Your task to perform on an android device: Is it going to rain today? Image 0: 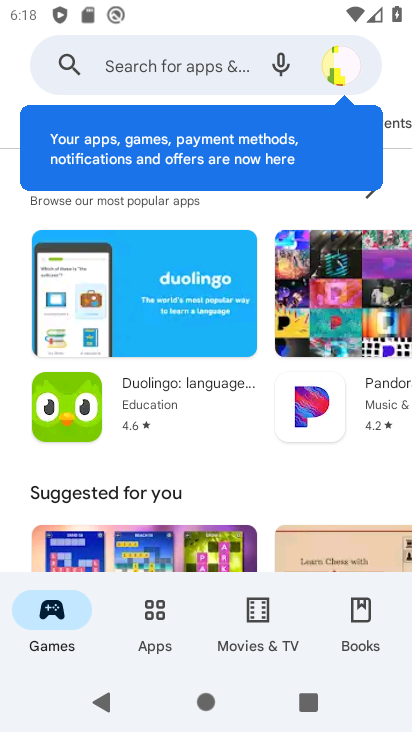
Step 0: press home button
Your task to perform on an android device: Is it going to rain today? Image 1: 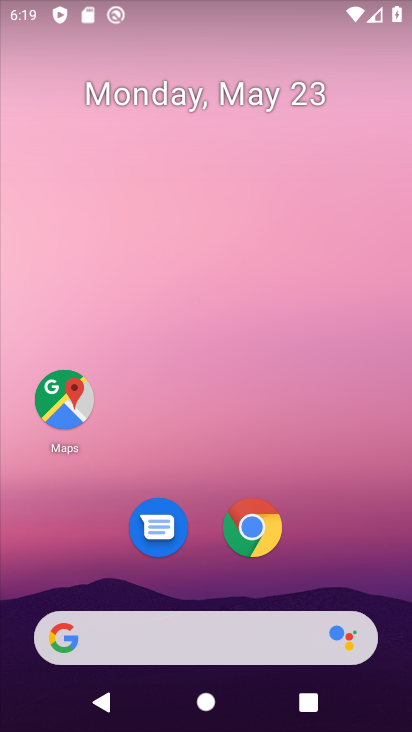
Step 1: click (332, 566)
Your task to perform on an android device: Is it going to rain today? Image 2: 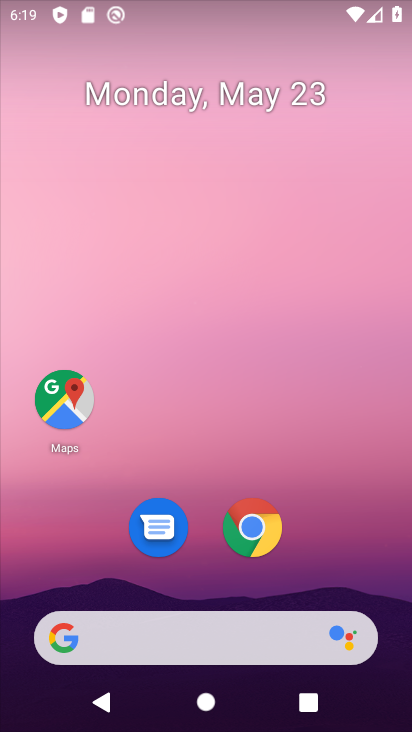
Step 2: click (269, 537)
Your task to perform on an android device: Is it going to rain today? Image 3: 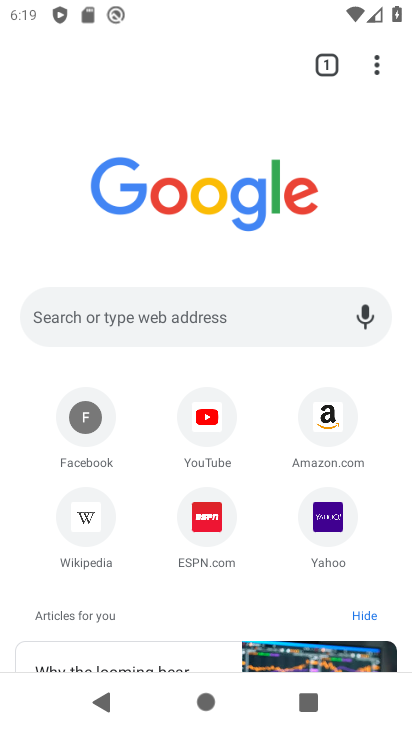
Step 3: click (229, 322)
Your task to perform on an android device: Is it going to rain today? Image 4: 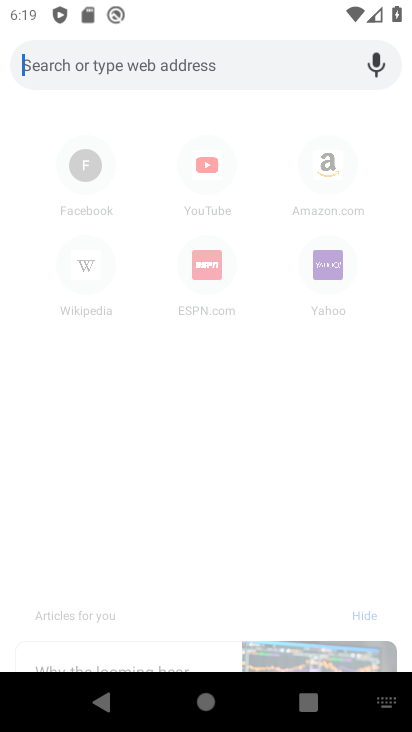
Step 4: type "Is it going to rain today?"
Your task to perform on an android device: Is it going to rain today? Image 5: 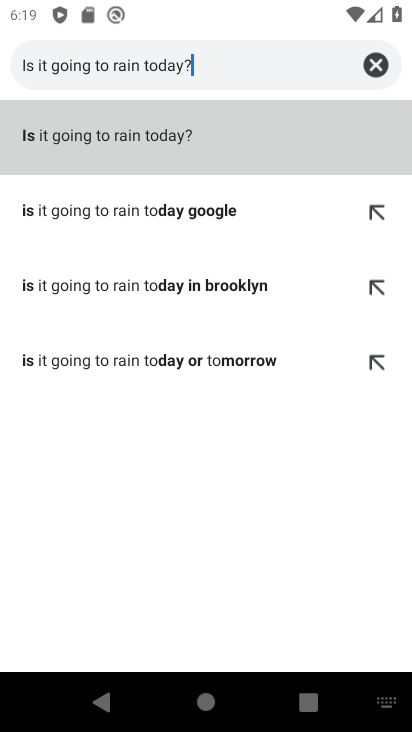
Step 5: click (140, 132)
Your task to perform on an android device: Is it going to rain today? Image 6: 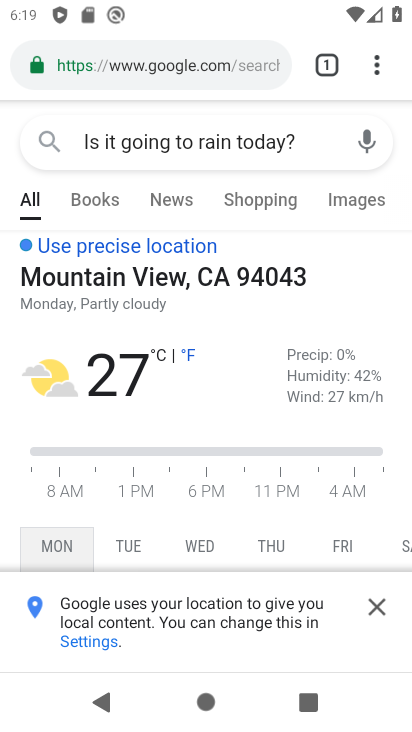
Step 6: task complete